Your task to perform on an android device: Go to display settings Image 0: 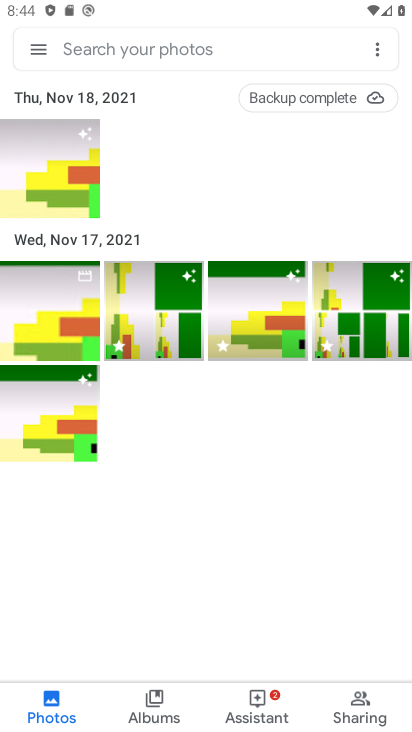
Step 0: drag from (296, 699) to (272, 141)
Your task to perform on an android device: Go to display settings Image 1: 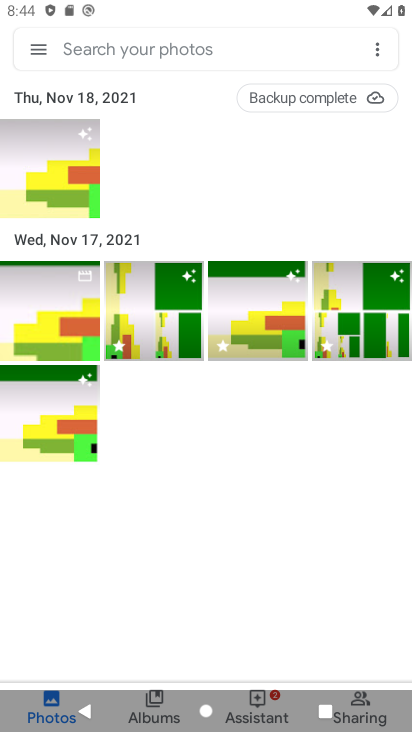
Step 1: press back button
Your task to perform on an android device: Go to display settings Image 2: 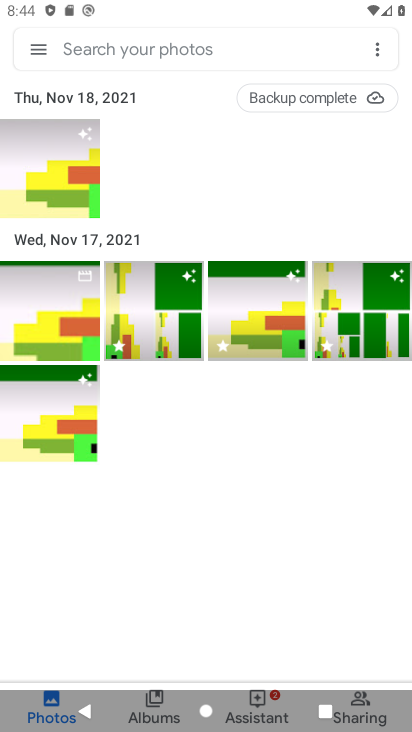
Step 2: press back button
Your task to perform on an android device: Go to display settings Image 3: 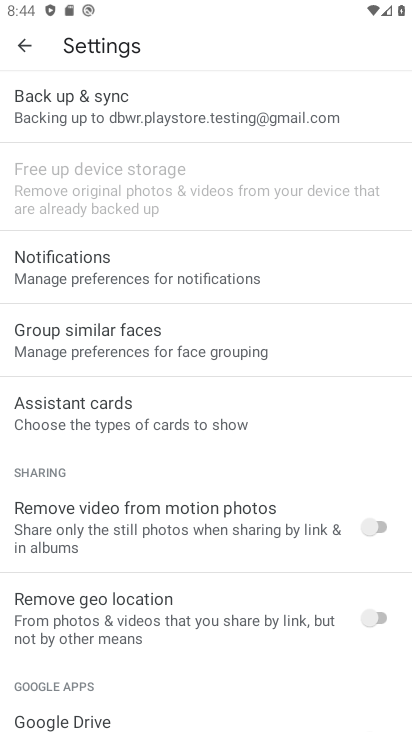
Step 3: click (28, 52)
Your task to perform on an android device: Go to display settings Image 4: 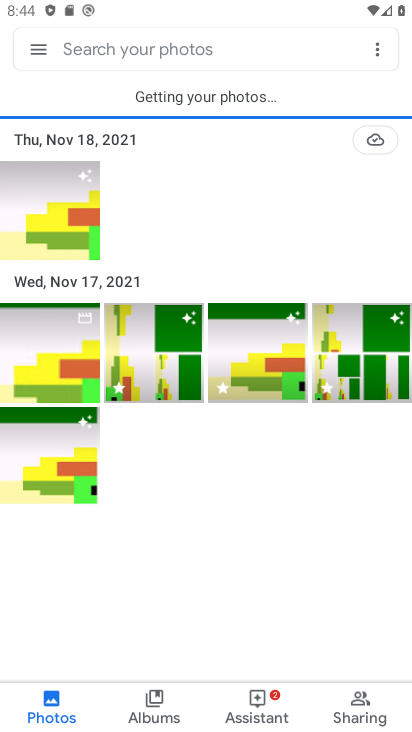
Step 4: press home button
Your task to perform on an android device: Go to display settings Image 5: 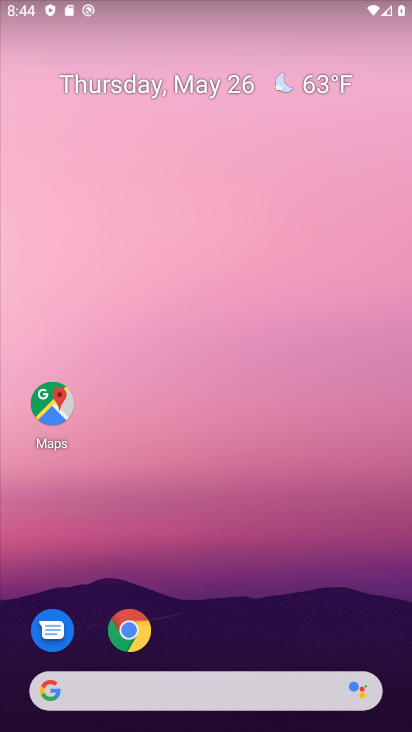
Step 5: drag from (272, 693) to (241, 156)
Your task to perform on an android device: Go to display settings Image 6: 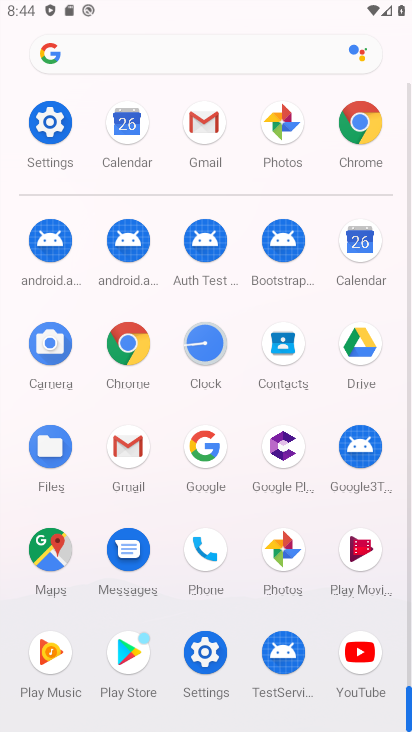
Step 6: click (200, 658)
Your task to perform on an android device: Go to display settings Image 7: 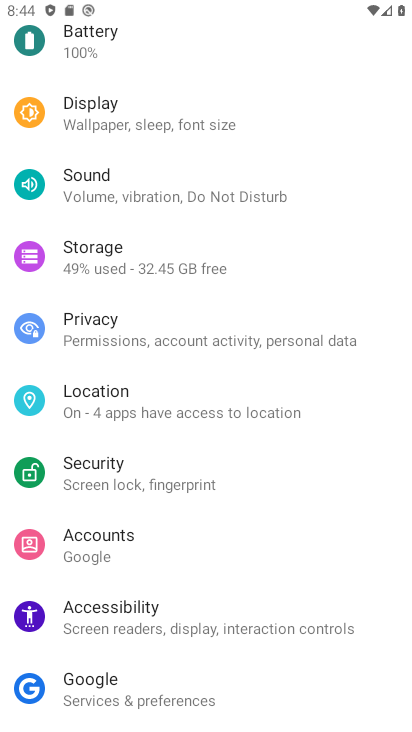
Step 7: click (97, 117)
Your task to perform on an android device: Go to display settings Image 8: 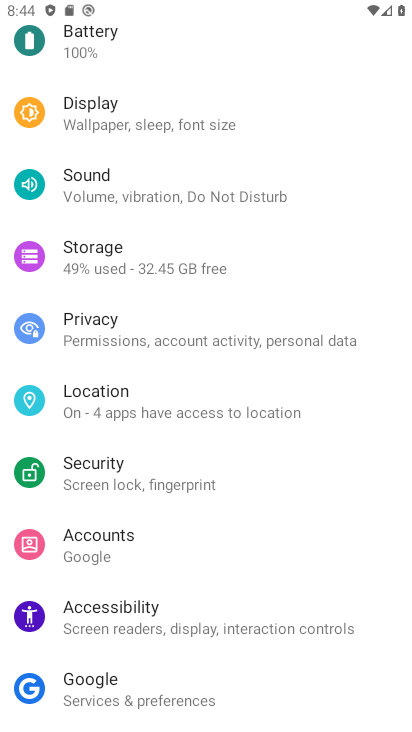
Step 8: click (97, 117)
Your task to perform on an android device: Go to display settings Image 9: 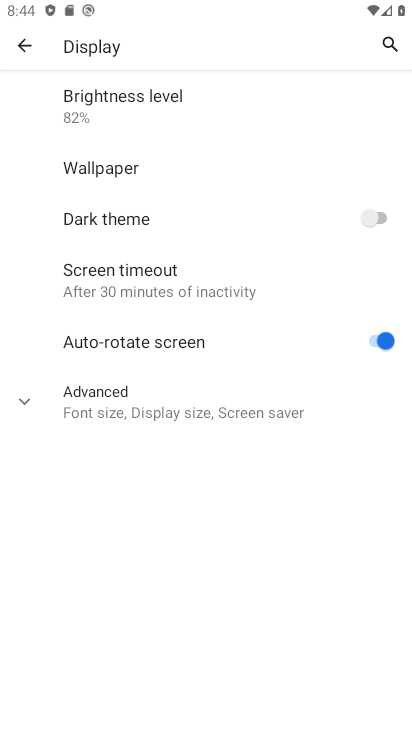
Step 9: task complete